Your task to perform on an android device: Go to location settings Image 0: 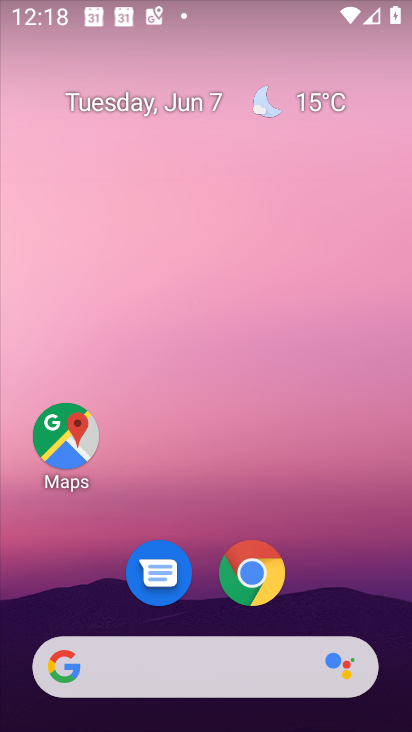
Step 0: drag from (335, 605) to (296, 15)
Your task to perform on an android device: Go to location settings Image 1: 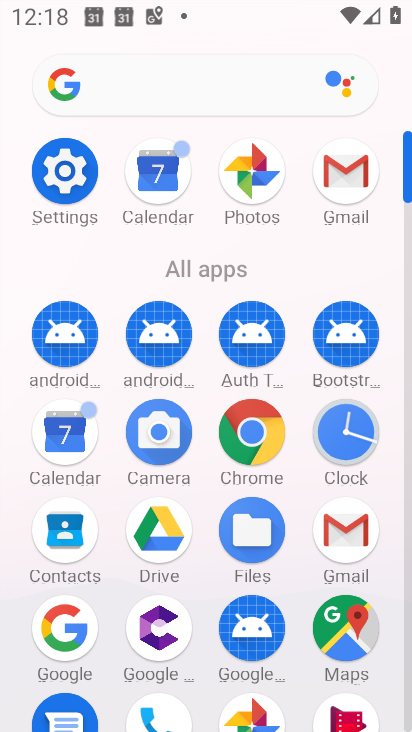
Step 1: drag from (108, 686) to (106, 478)
Your task to perform on an android device: Go to location settings Image 2: 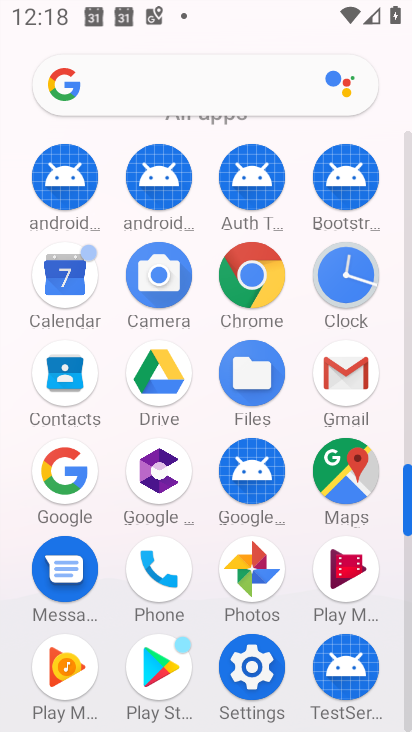
Step 2: click (245, 645)
Your task to perform on an android device: Go to location settings Image 3: 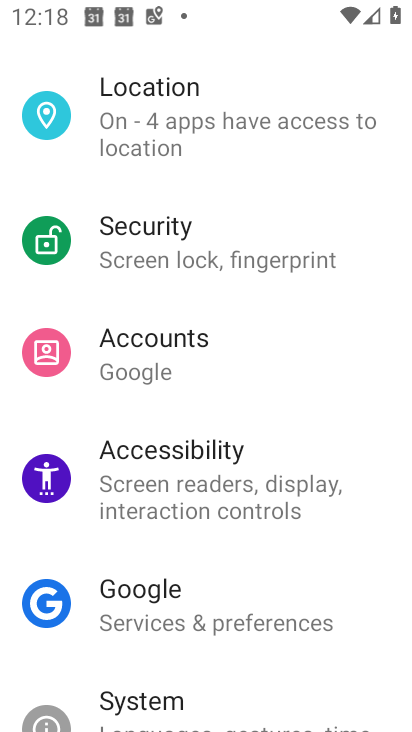
Step 3: click (211, 128)
Your task to perform on an android device: Go to location settings Image 4: 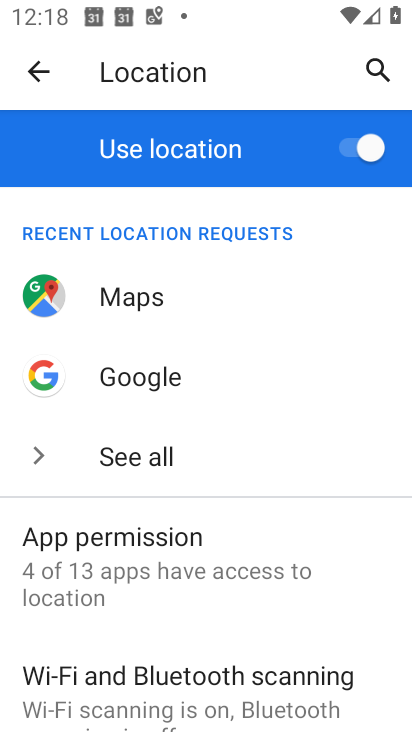
Step 4: task complete